Your task to perform on an android device: turn on translation in the chrome app Image 0: 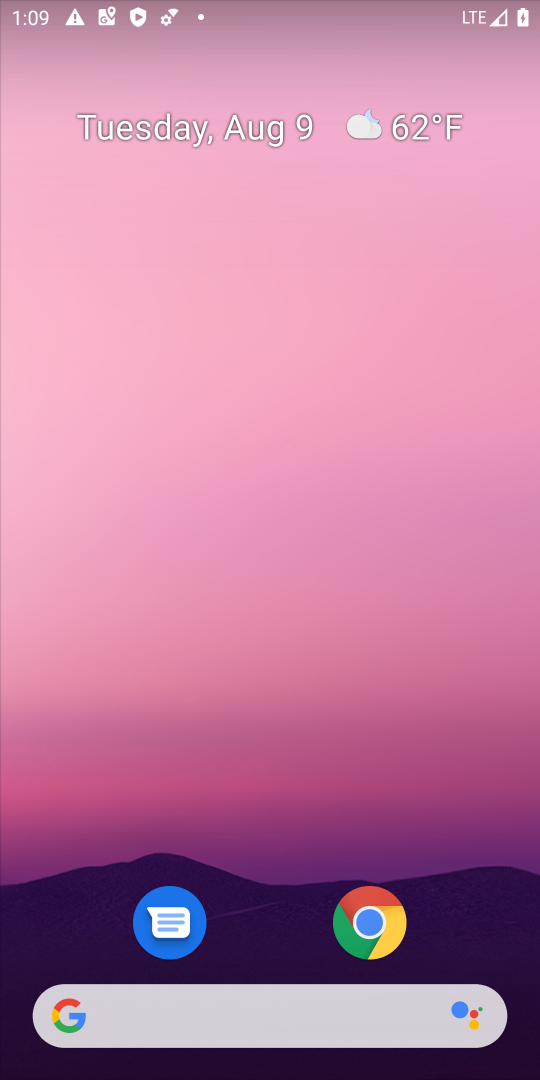
Step 0: click (395, 927)
Your task to perform on an android device: turn on translation in the chrome app Image 1: 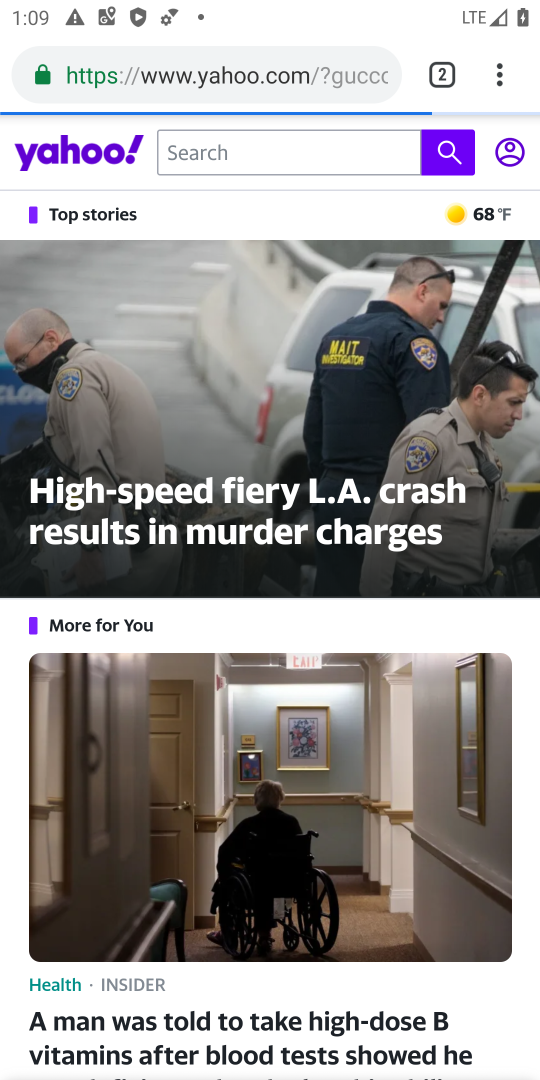
Step 1: click (504, 76)
Your task to perform on an android device: turn on translation in the chrome app Image 2: 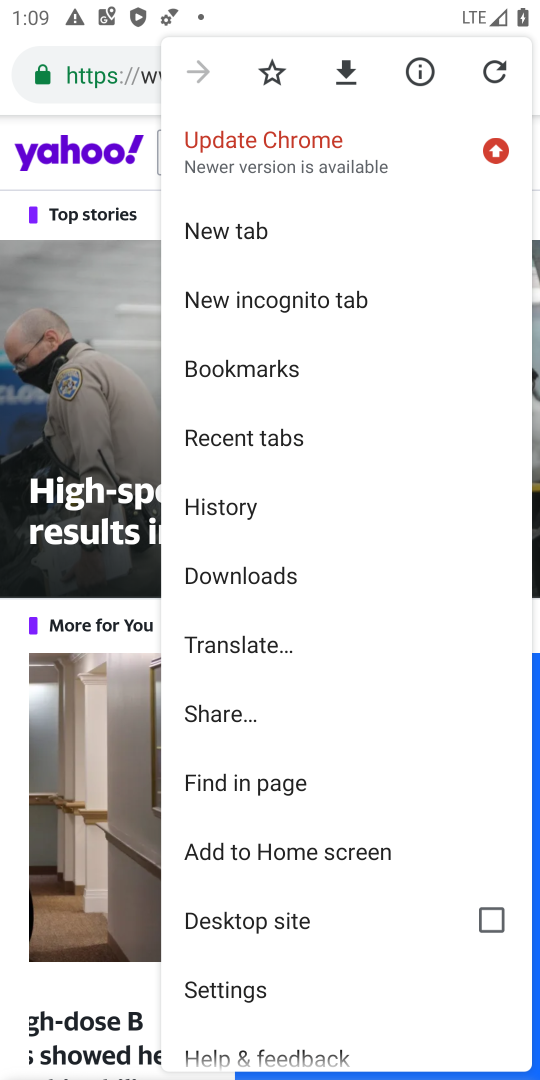
Step 2: click (234, 993)
Your task to perform on an android device: turn on translation in the chrome app Image 3: 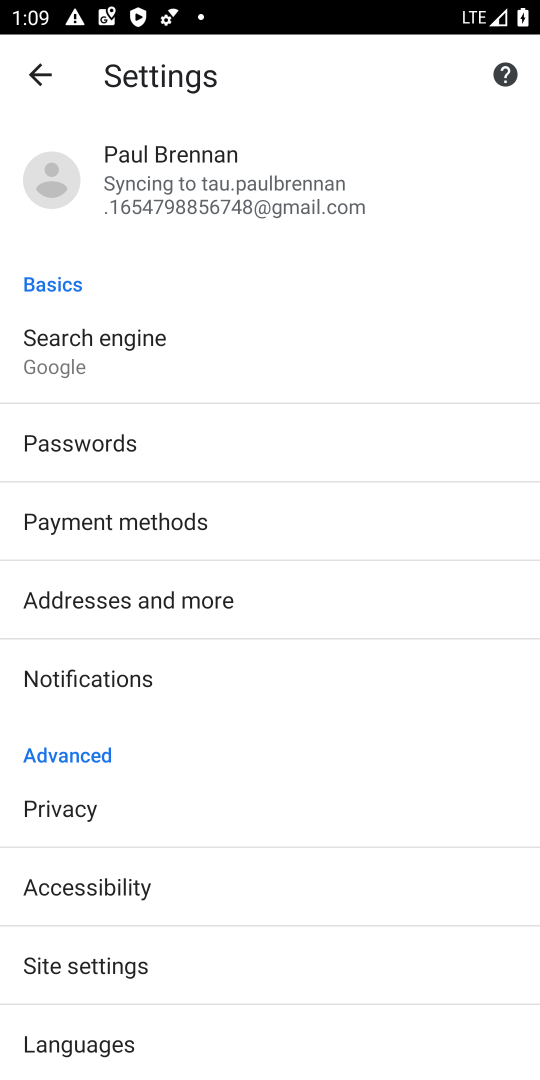
Step 3: click (105, 1043)
Your task to perform on an android device: turn on translation in the chrome app Image 4: 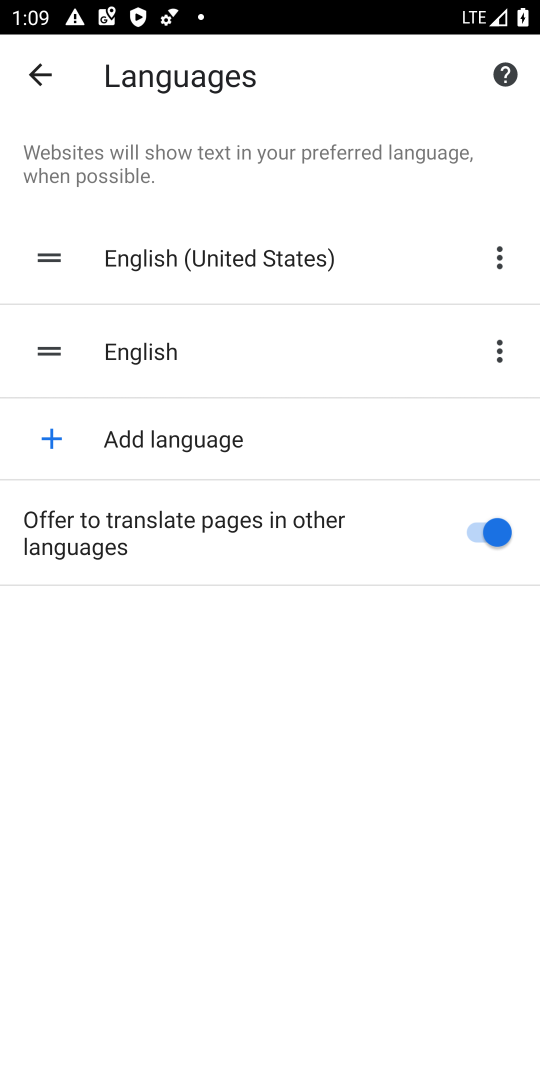
Step 4: task complete